Your task to perform on an android device: turn off improve location accuracy Image 0: 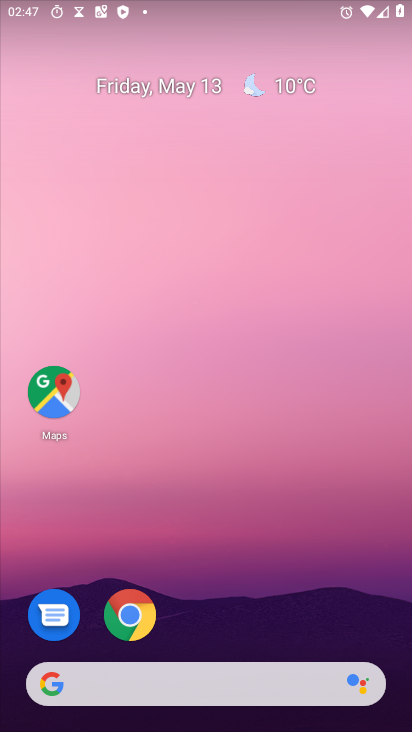
Step 0: drag from (216, 550) to (90, 23)
Your task to perform on an android device: turn off improve location accuracy Image 1: 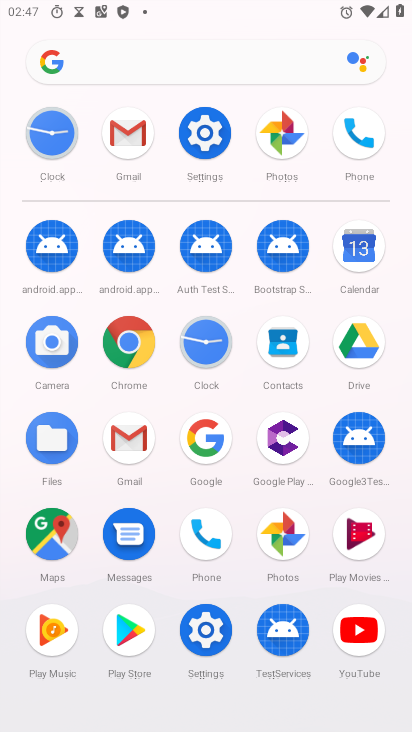
Step 1: click (207, 645)
Your task to perform on an android device: turn off improve location accuracy Image 2: 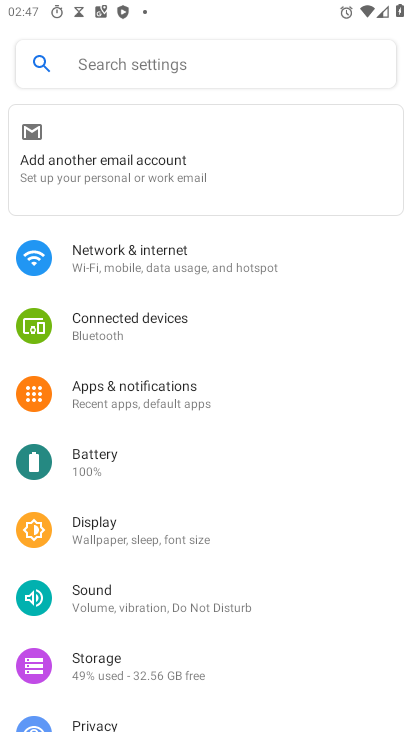
Step 2: drag from (153, 547) to (153, 287)
Your task to perform on an android device: turn off improve location accuracy Image 3: 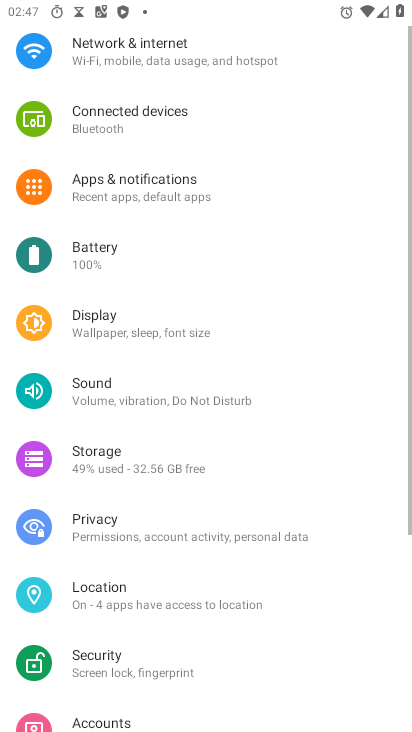
Step 3: click (148, 248)
Your task to perform on an android device: turn off improve location accuracy Image 4: 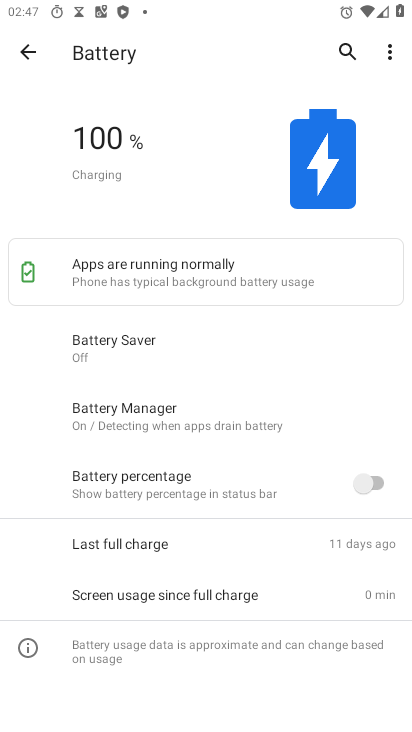
Step 4: click (114, 612)
Your task to perform on an android device: turn off improve location accuracy Image 5: 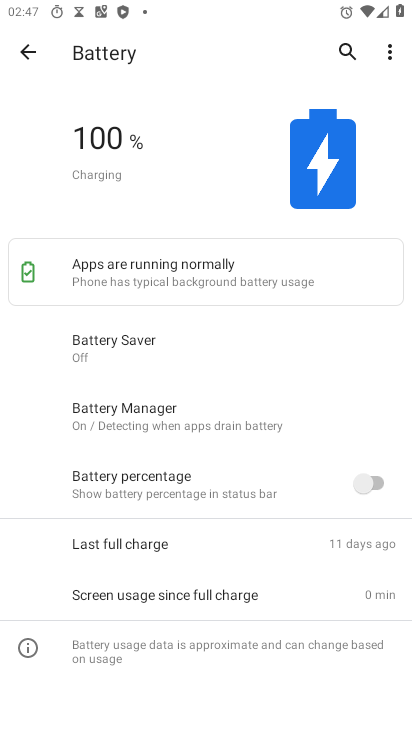
Step 5: task complete